Your task to perform on an android device: Turn on the flashlight Image 0: 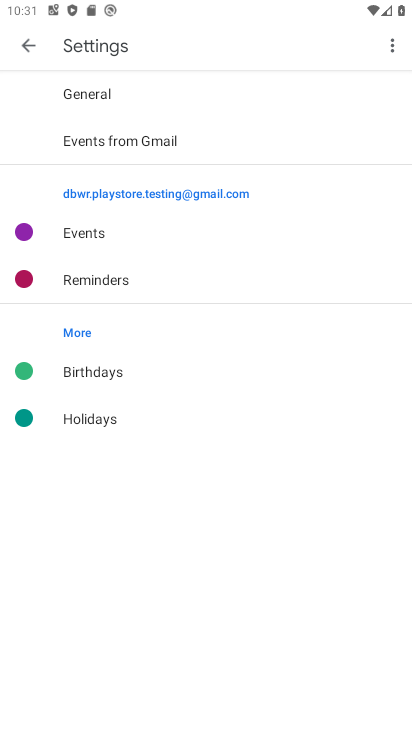
Step 0: press home button
Your task to perform on an android device: Turn on the flashlight Image 1: 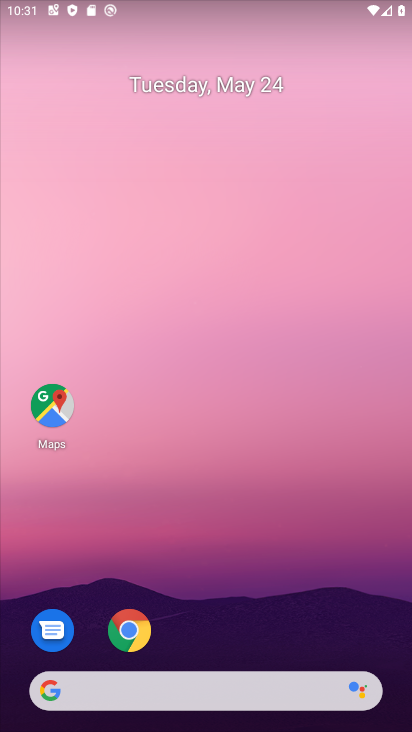
Step 1: drag from (209, 646) to (250, 68)
Your task to perform on an android device: Turn on the flashlight Image 2: 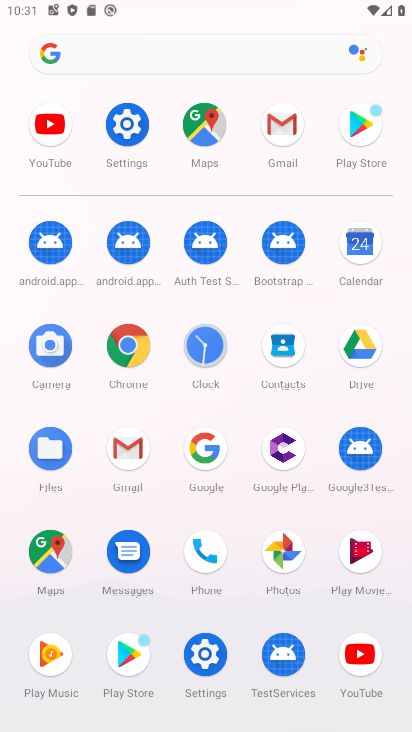
Step 2: click (125, 116)
Your task to perform on an android device: Turn on the flashlight Image 3: 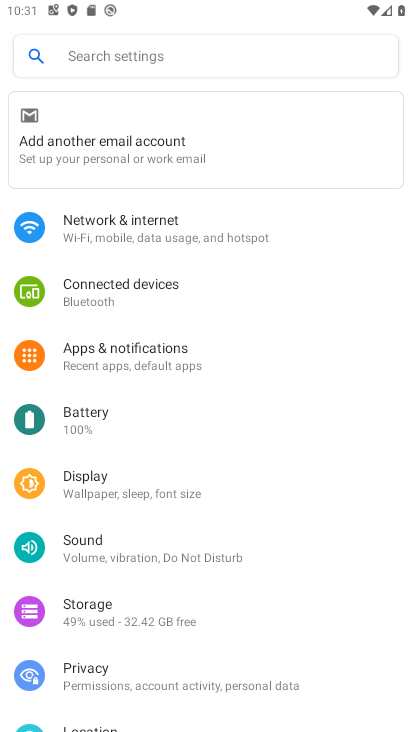
Step 3: click (118, 49)
Your task to perform on an android device: Turn on the flashlight Image 4: 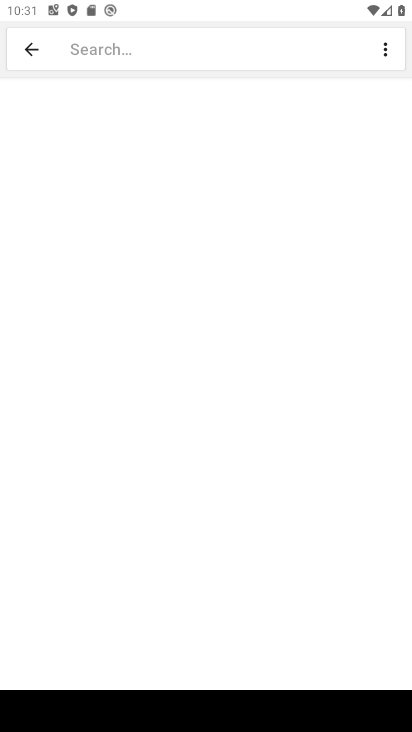
Step 4: type "flashlight"
Your task to perform on an android device: Turn on the flashlight Image 5: 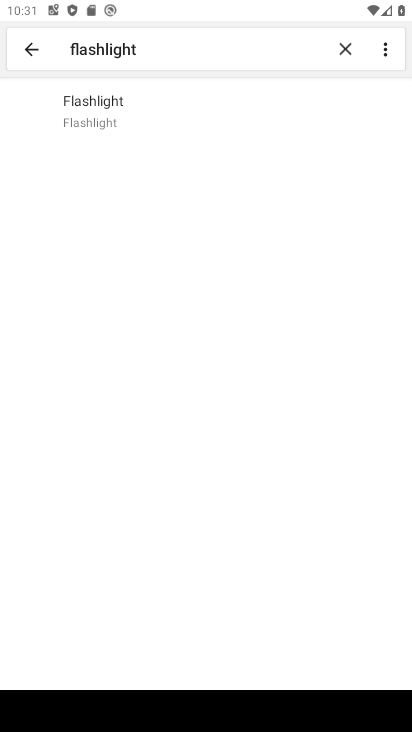
Step 5: click (138, 105)
Your task to perform on an android device: Turn on the flashlight Image 6: 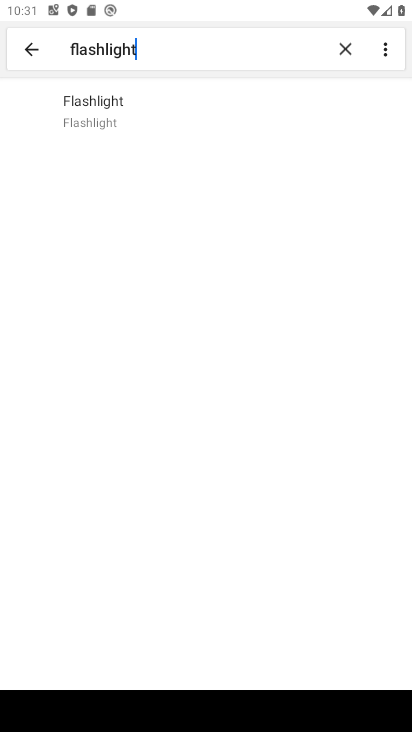
Step 6: click (123, 107)
Your task to perform on an android device: Turn on the flashlight Image 7: 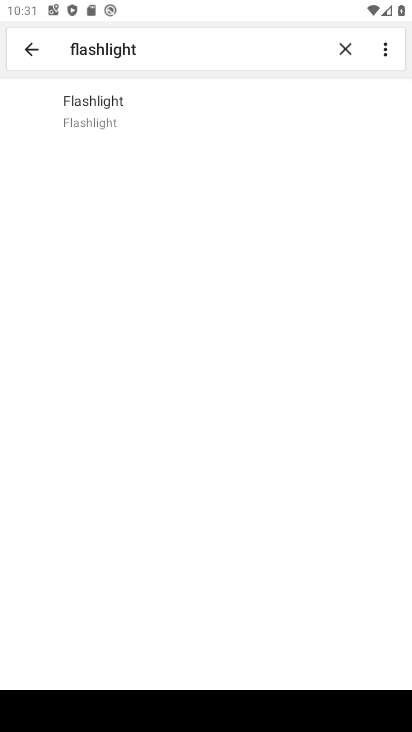
Step 7: task complete